Your task to perform on an android device: Show me recent news Image 0: 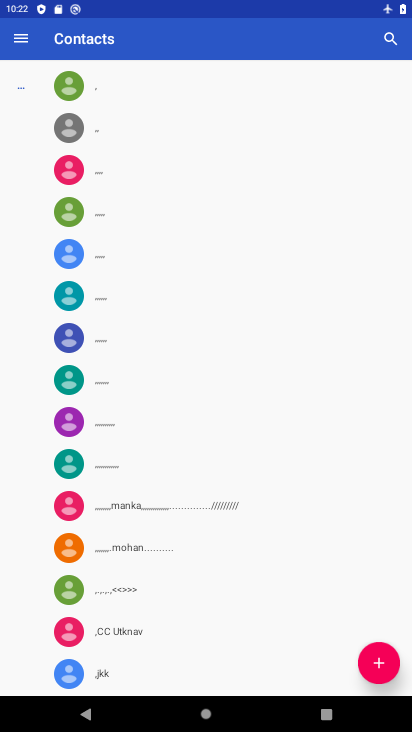
Step 0: press home button
Your task to perform on an android device: Show me recent news Image 1: 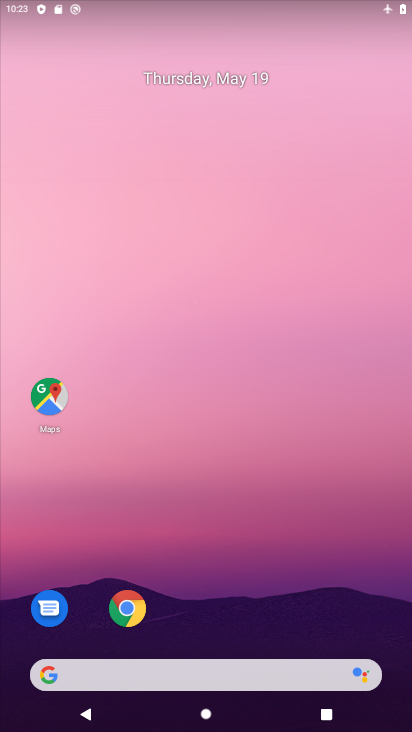
Step 1: click (409, 283)
Your task to perform on an android device: Show me recent news Image 2: 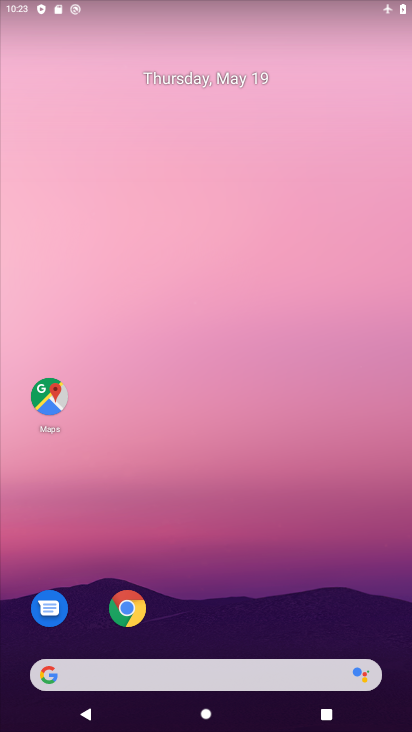
Step 2: drag from (394, 663) to (348, 145)
Your task to perform on an android device: Show me recent news Image 3: 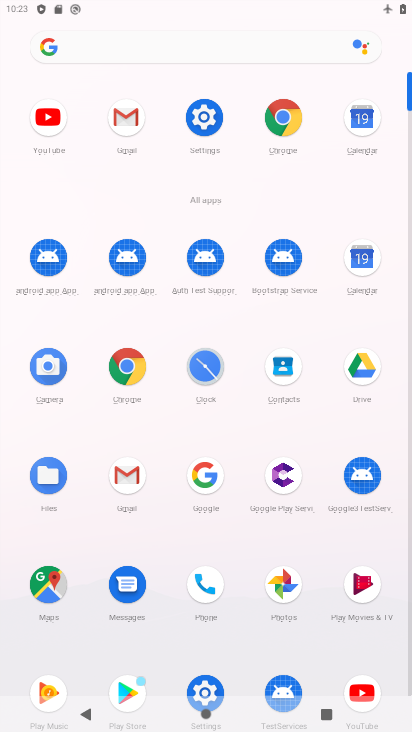
Step 3: click (204, 106)
Your task to perform on an android device: Show me recent news Image 4: 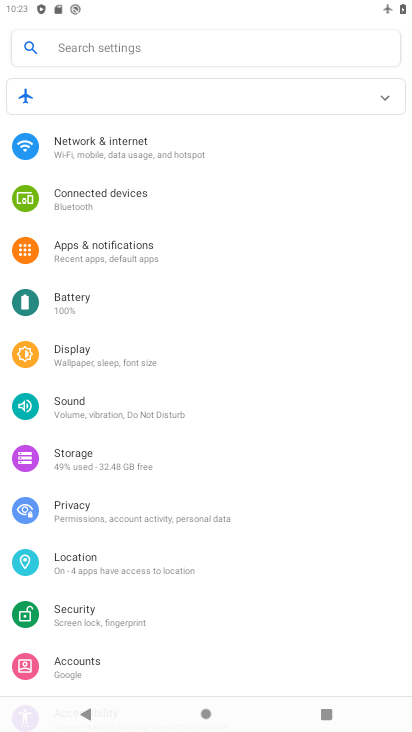
Step 4: click (182, 143)
Your task to perform on an android device: Show me recent news Image 5: 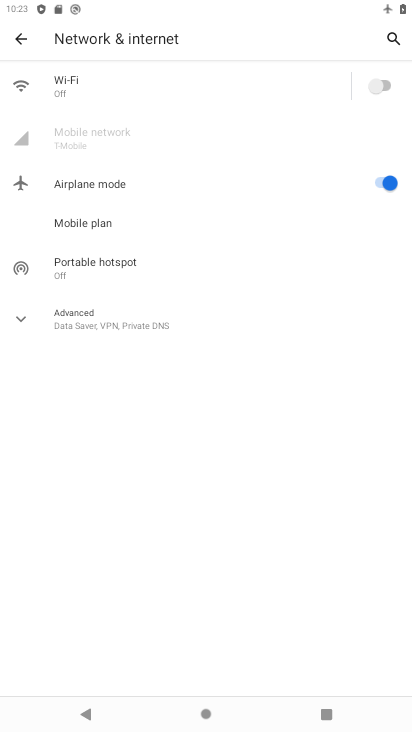
Step 5: click (380, 86)
Your task to perform on an android device: Show me recent news Image 6: 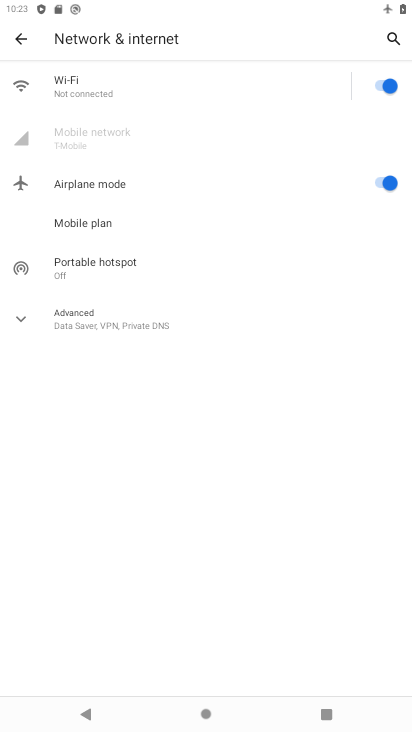
Step 6: click (374, 187)
Your task to perform on an android device: Show me recent news Image 7: 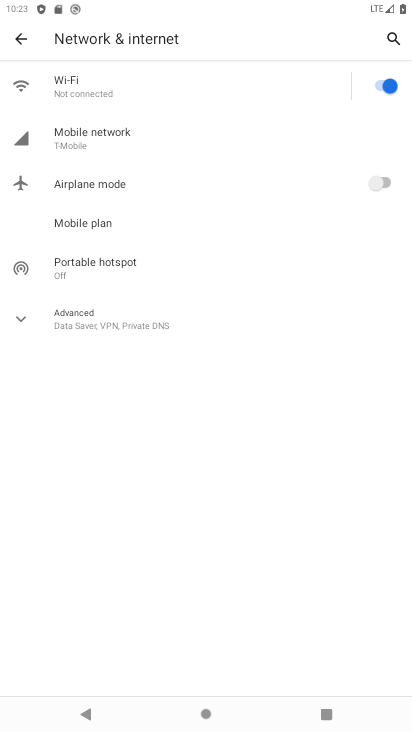
Step 7: click (19, 41)
Your task to perform on an android device: Show me recent news Image 8: 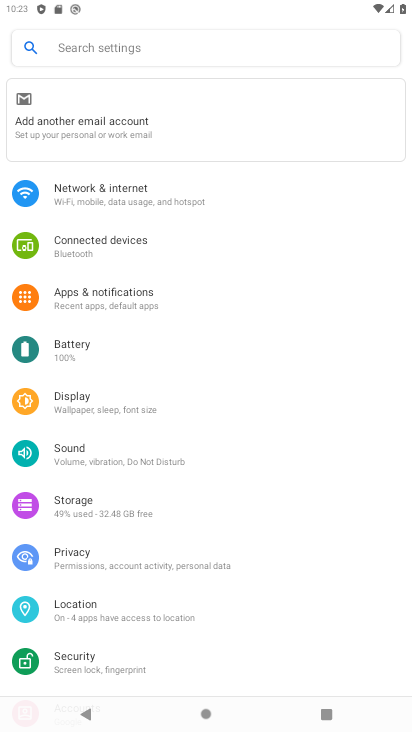
Step 8: task complete